Your task to perform on an android device: turn smart compose on in the gmail app Image 0: 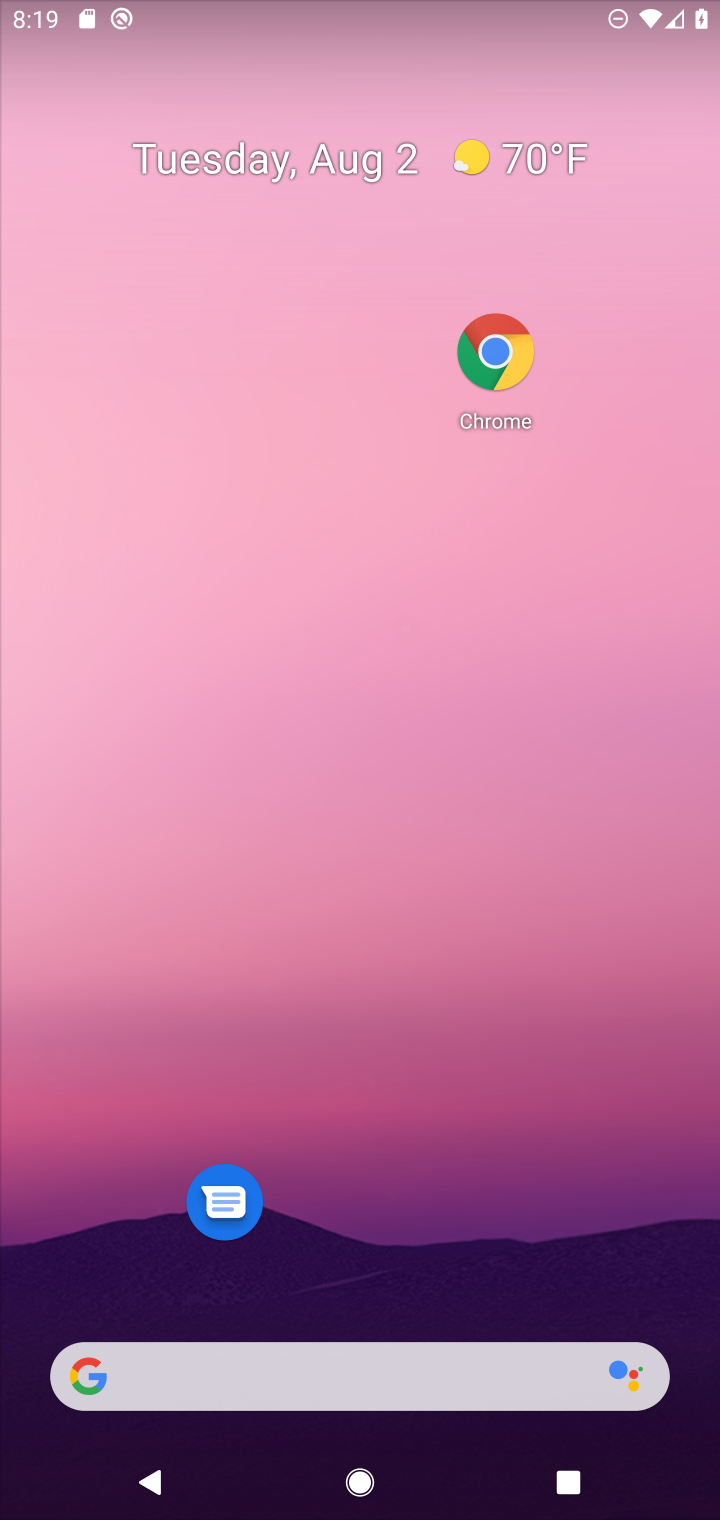
Step 0: drag from (419, 1271) to (423, 184)
Your task to perform on an android device: turn smart compose on in the gmail app Image 1: 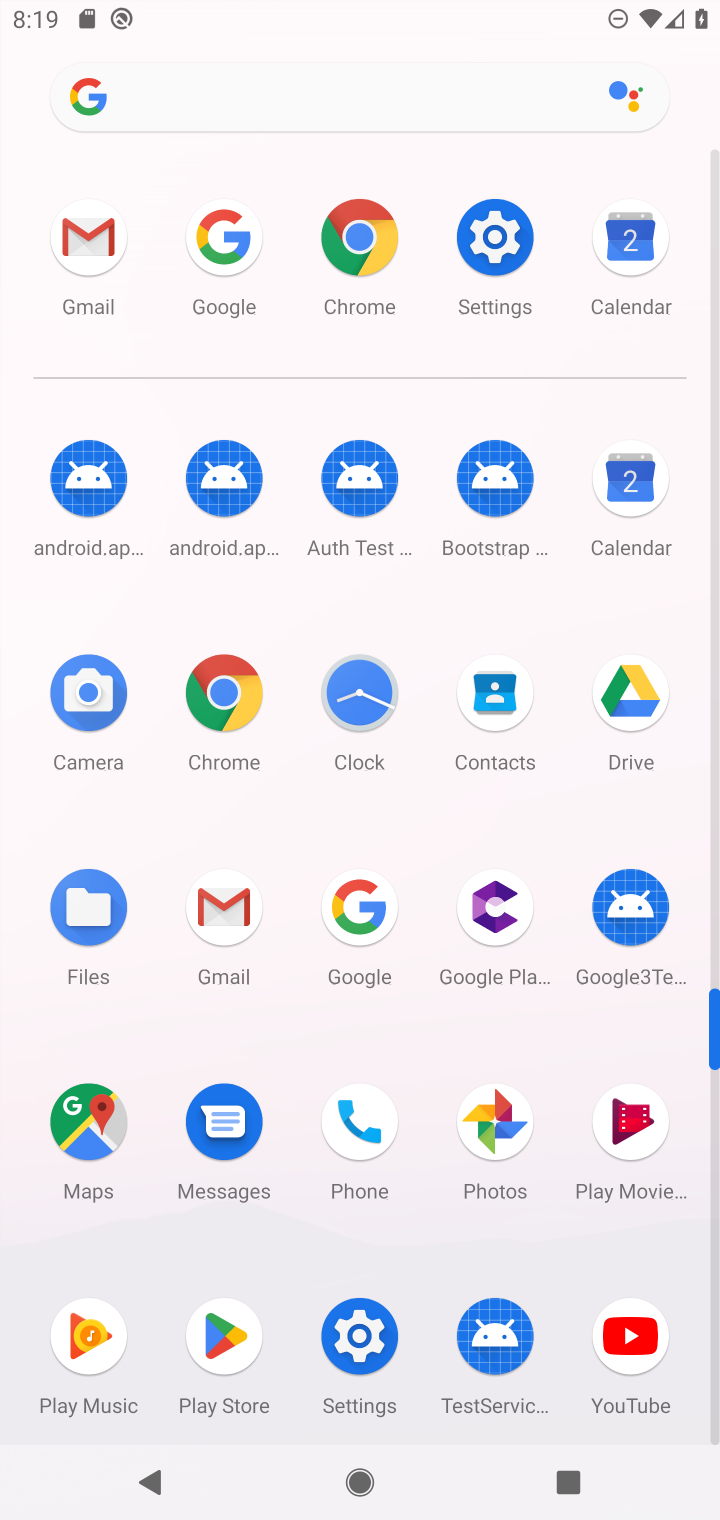
Step 1: click (81, 241)
Your task to perform on an android device: turn smart compose on in the gmail app Image 2: 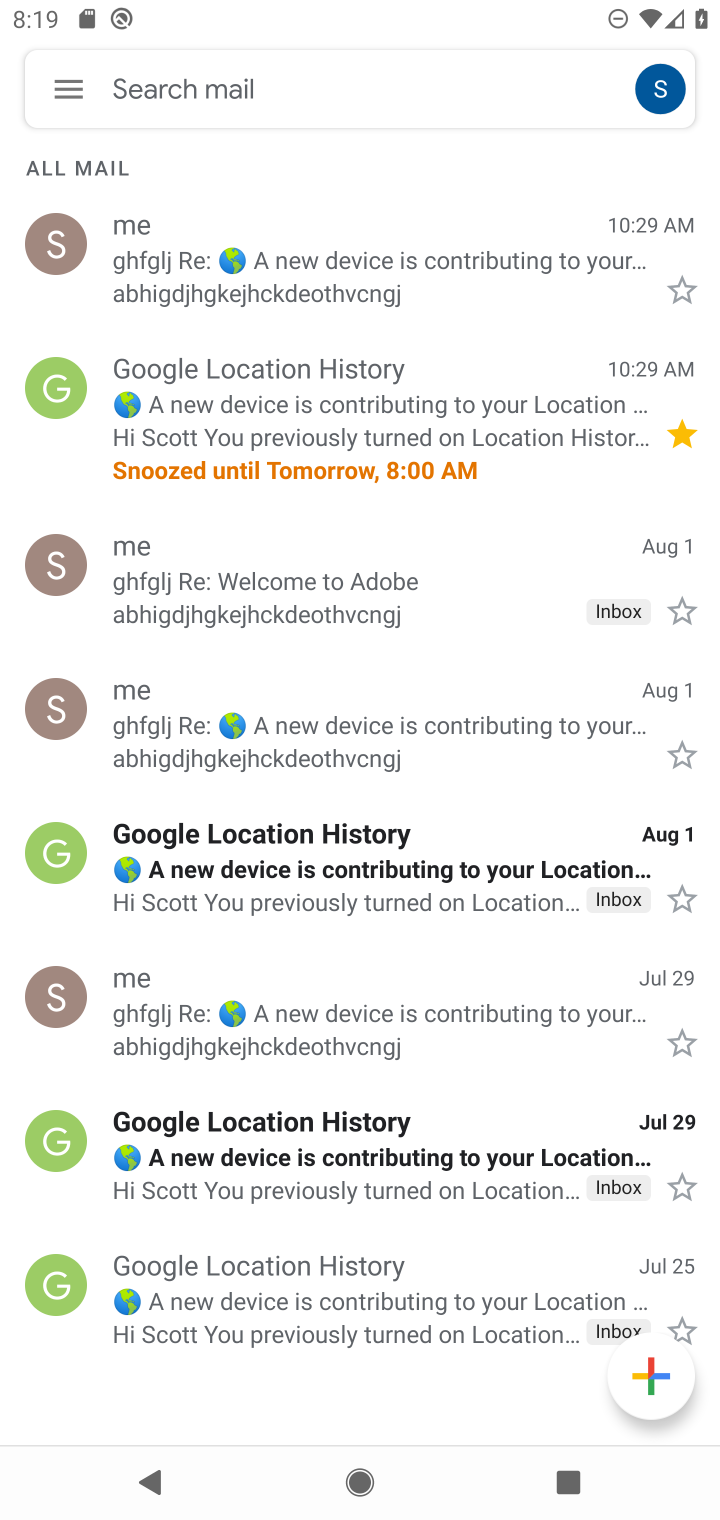
Step 2: click (68, 96)
Your task to perform on an android device: turn smart compose on in the gmail app Image 3: 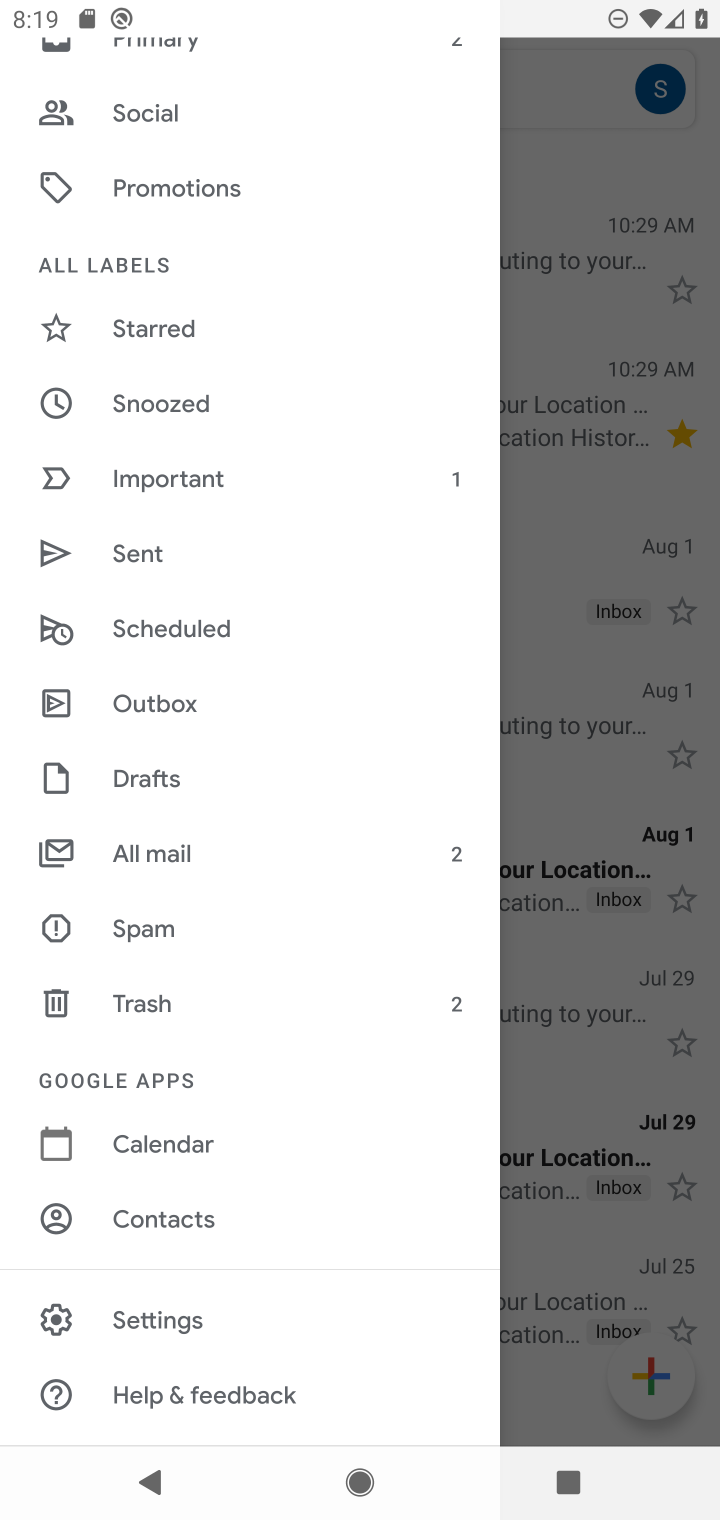
Step 3: click (157, 1333)
Your task to perform on an android device: turn smart compose on in the gmail app Image 4: 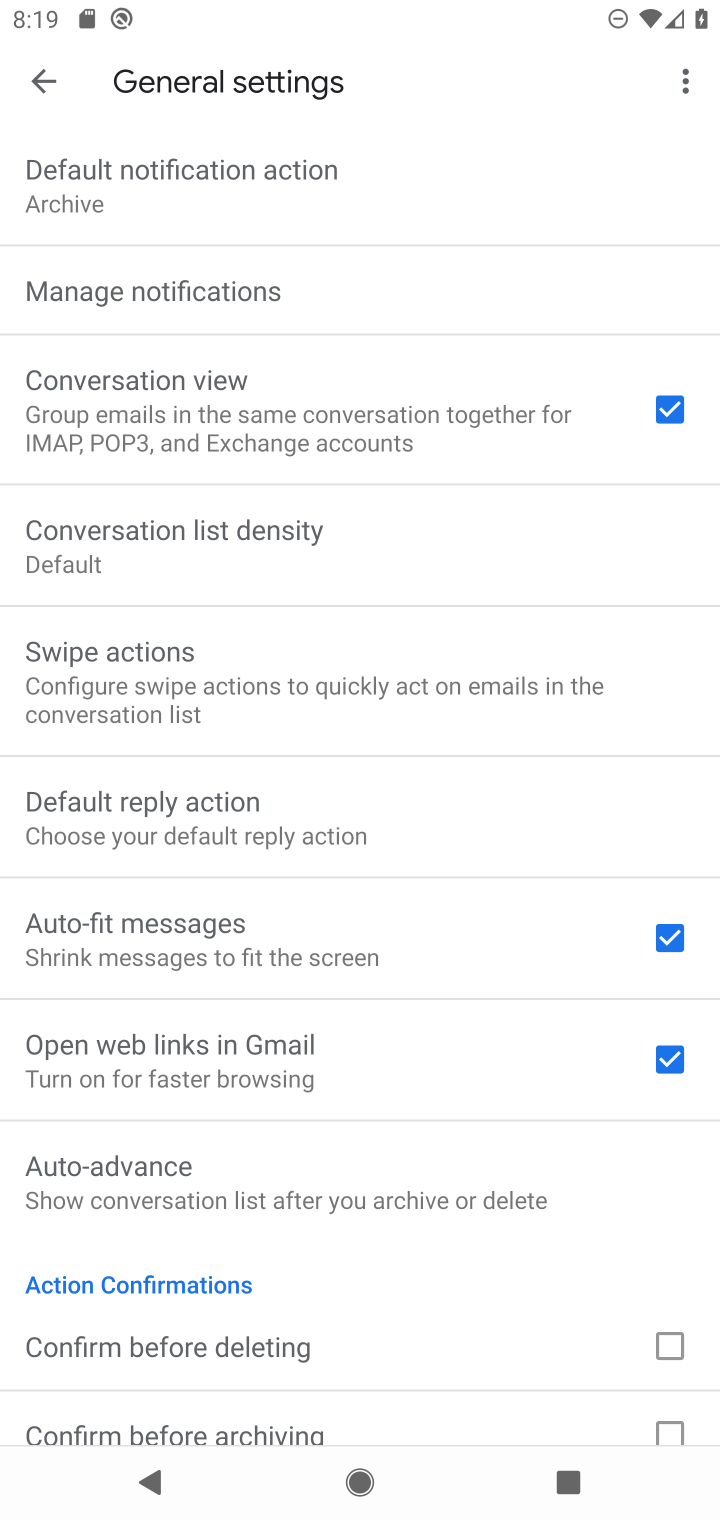
Step 4: click (44, 80)
Your task to perform on an android device: turn smart compose on in the gmail app Image 5: 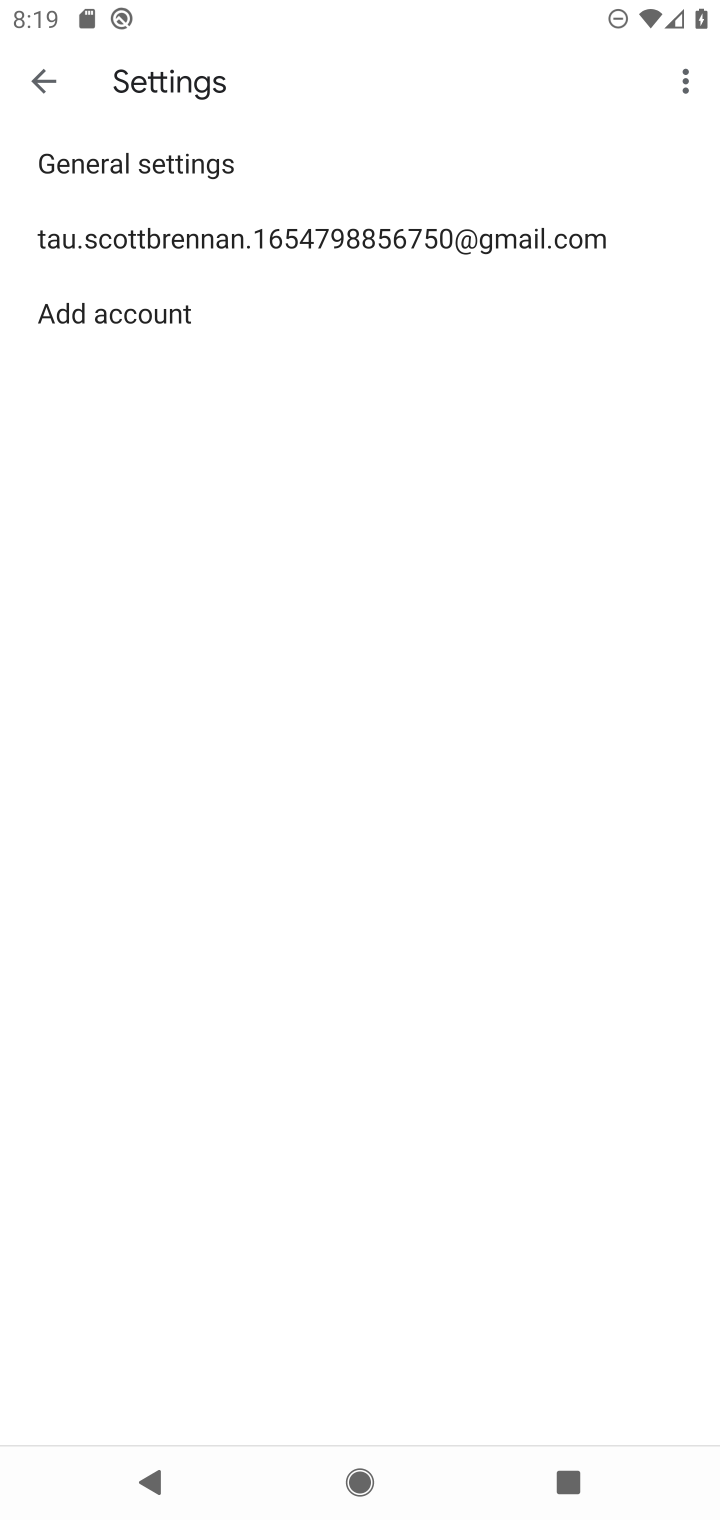
Step 5: click (136, 237)
Your task to perform on an android device: turn smart compose on in the gmail app Image 6: 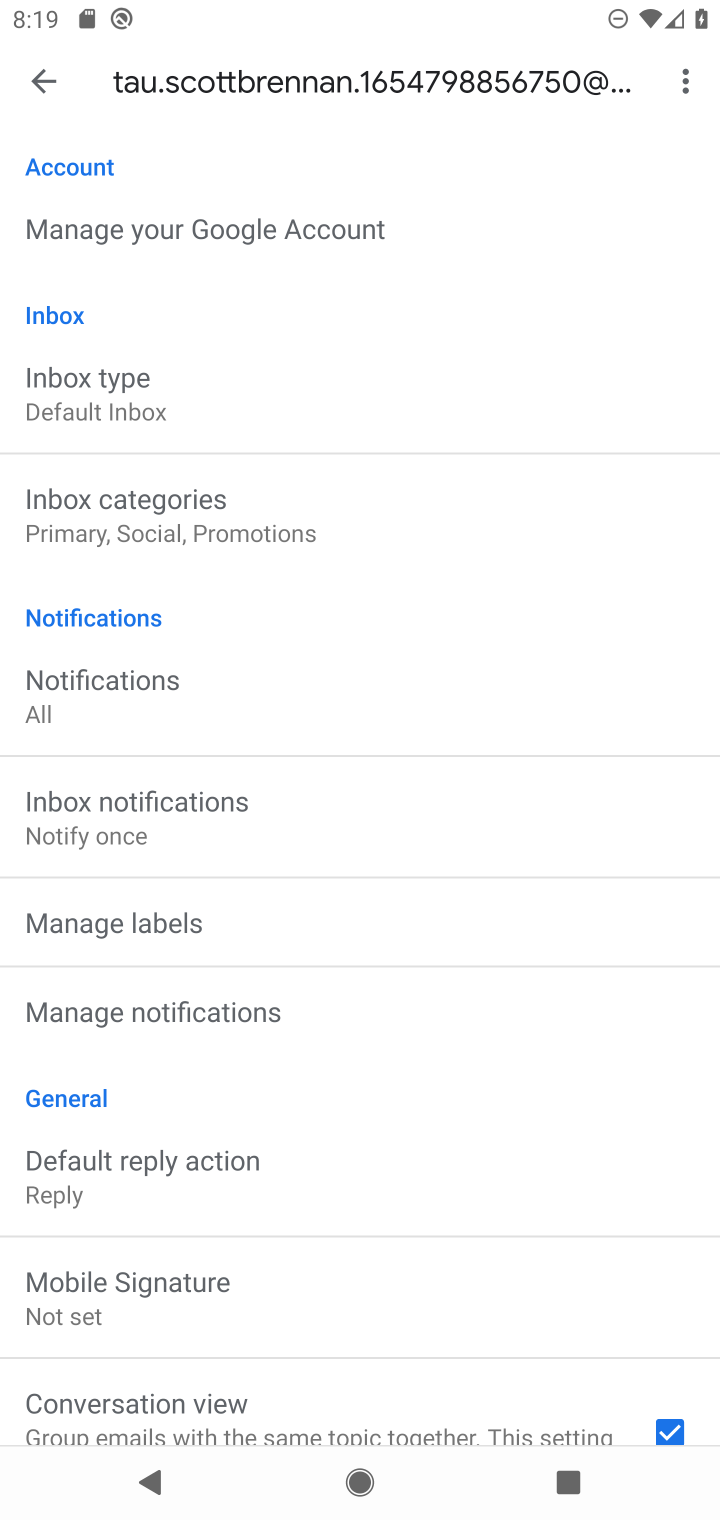
Step 6: task complete